Your task to perform on an android device: Is it going to rain this weekend? Image 0: 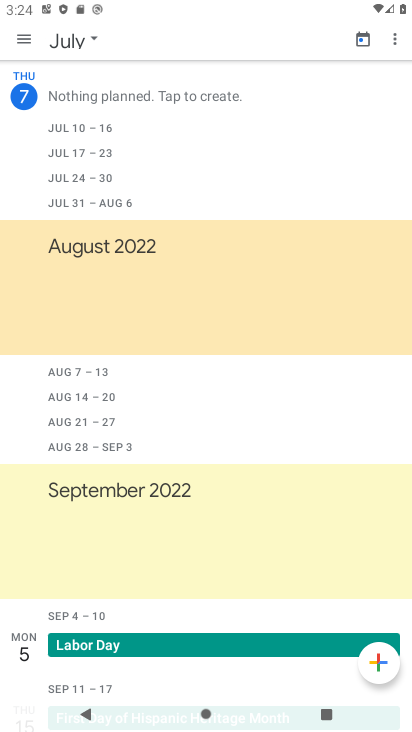
Step 0: press home button
Your task to perform on an android device: Is it going to rain this weekend? Image 1: 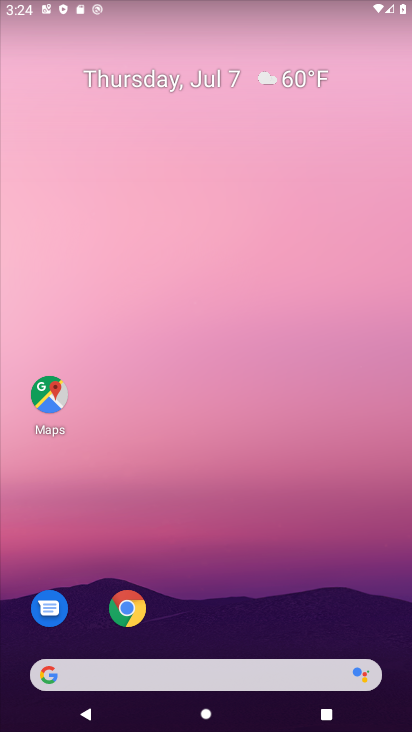
Step 1: click (278, 76)
Your task to perform on an android device: Is it going to rain this weekend? Image 2: 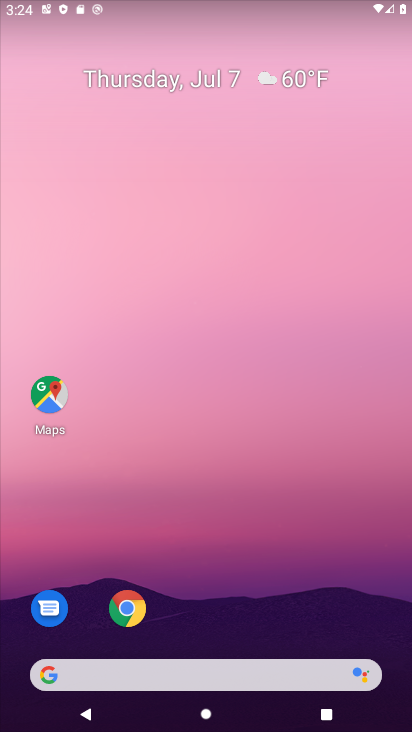
Step 2: click (289, 80)
Your task to perform on an android device: Is it going to rain this weekend? Image 3: 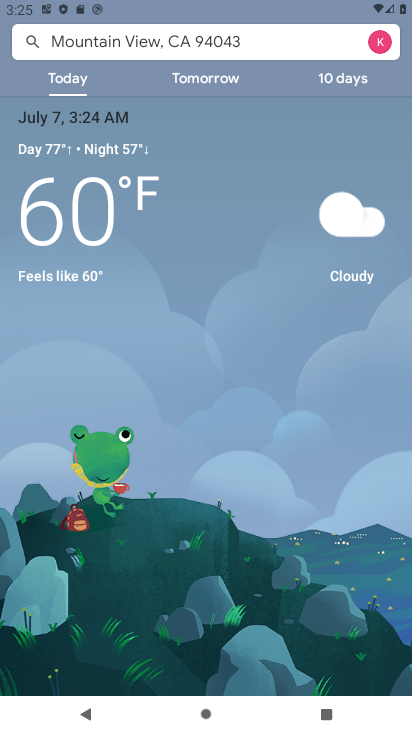
Step 3: click (321, 93)
Your task to perform on an android device: Is it going to rain this weekend? Image 4: 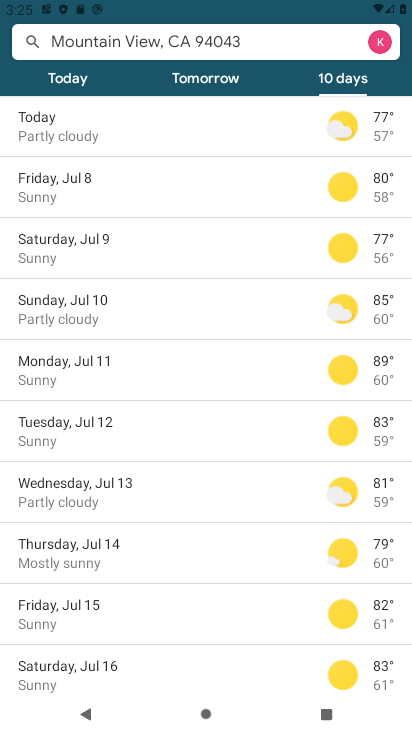
Step 4: task complete